Your task to perform on an android device: Open Google Chrome and open the bookmarks view Image 0: 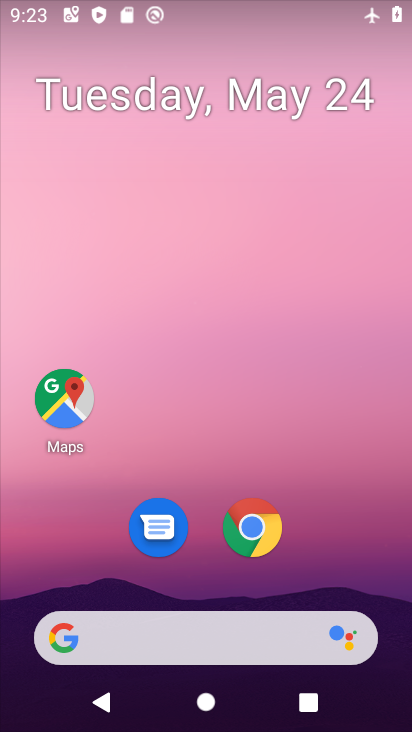
Step 0: click (251, 530)
Your task to perform on an android device: Open Google Chrome and open the bookmarks view Image 1: 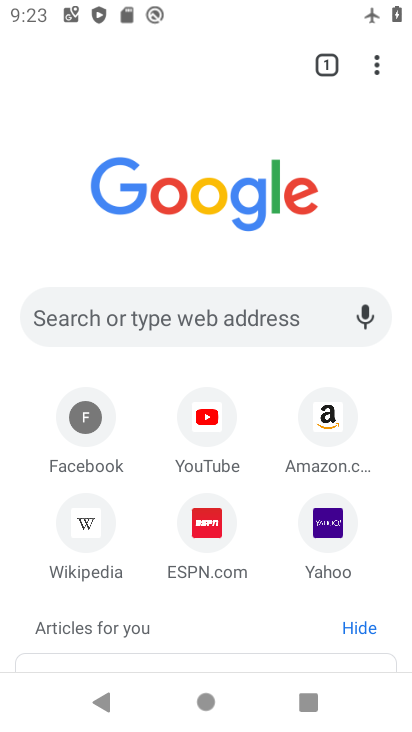
Step 1: click (371, 65)
Your task to perform on an android device: Open Google Chrome and open the bookmarks view Image 2: 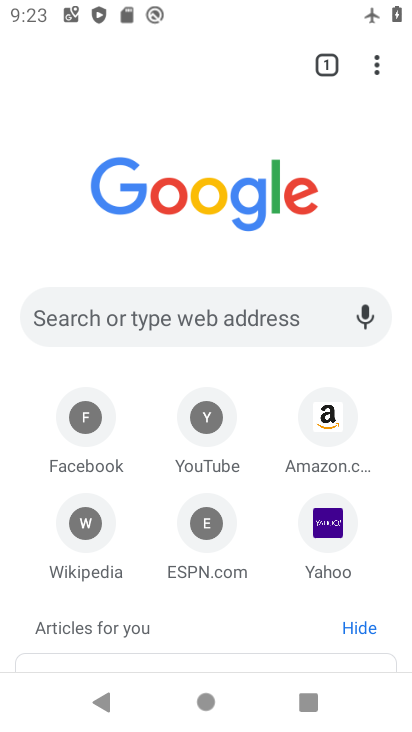
Step 2: click (374, 58)
Your task to perform on an android device: Open Google Chrome and open the bookmarks view Image 3: 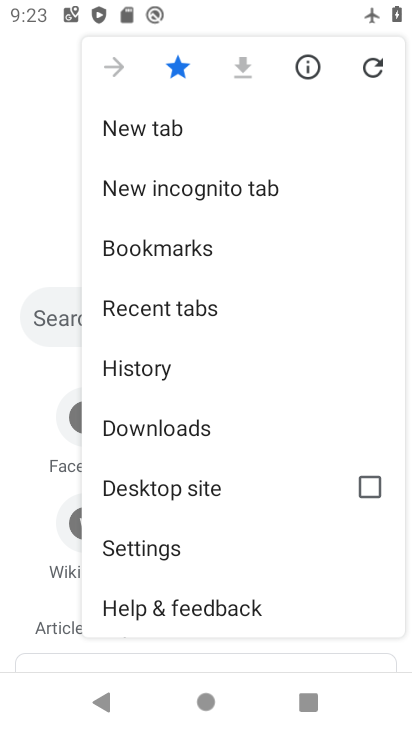
Step 3: click (183, 245)
Your task to perform on an android device: Open Google Chrome and open the bookmarks view Image 4: 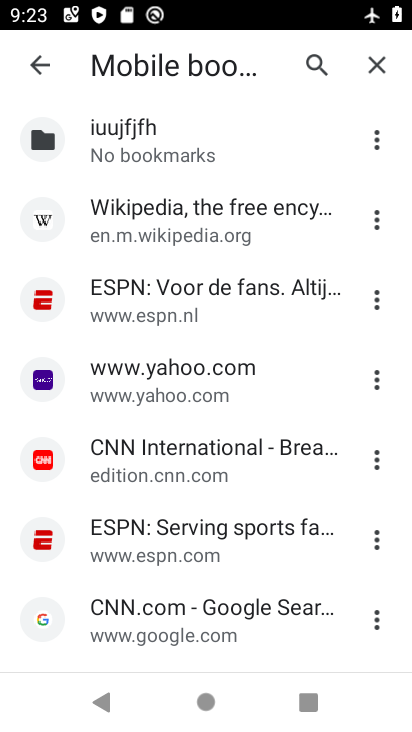
Step 4: task complete